Your task to perform on an android device: Open maps Image 0: 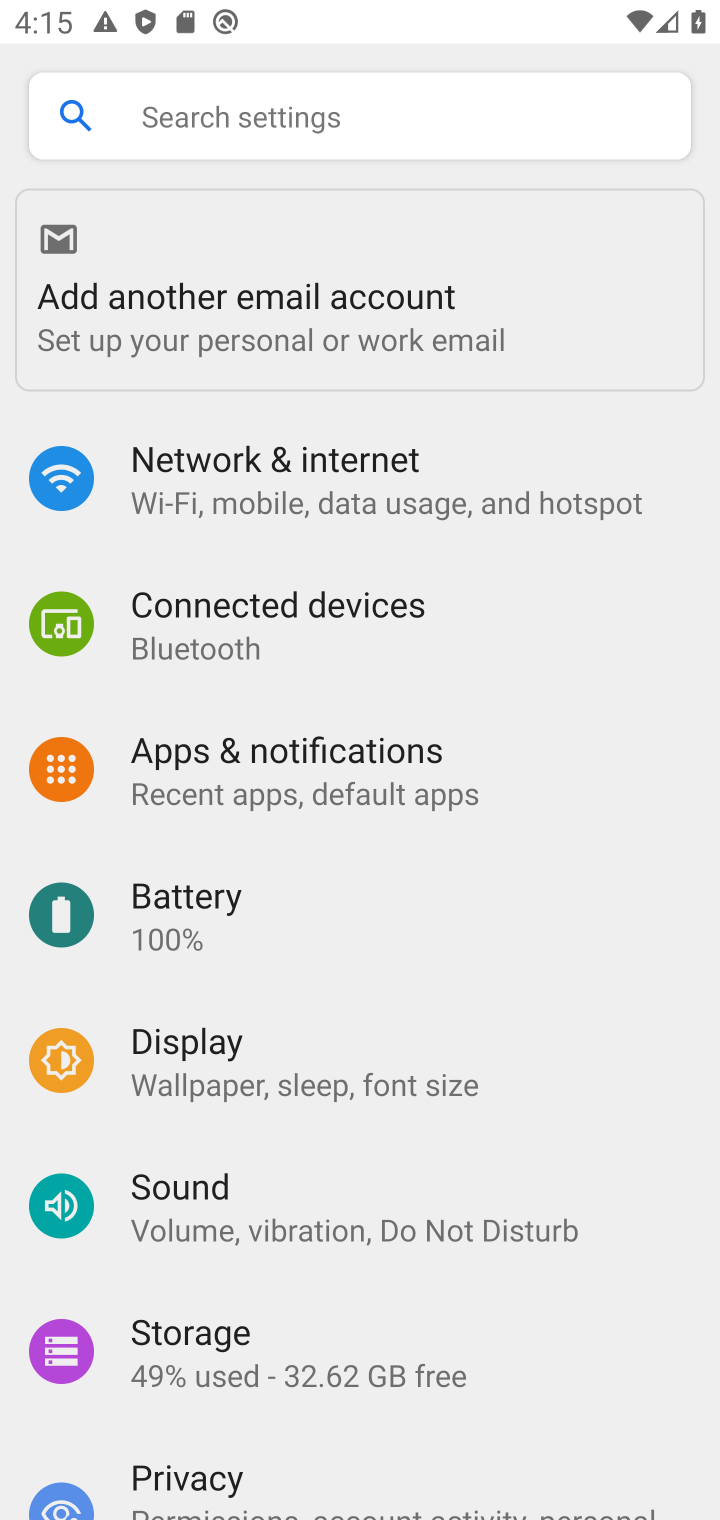
Step 0: press home button
Your task to perform on an android device: Open maps Image 1: 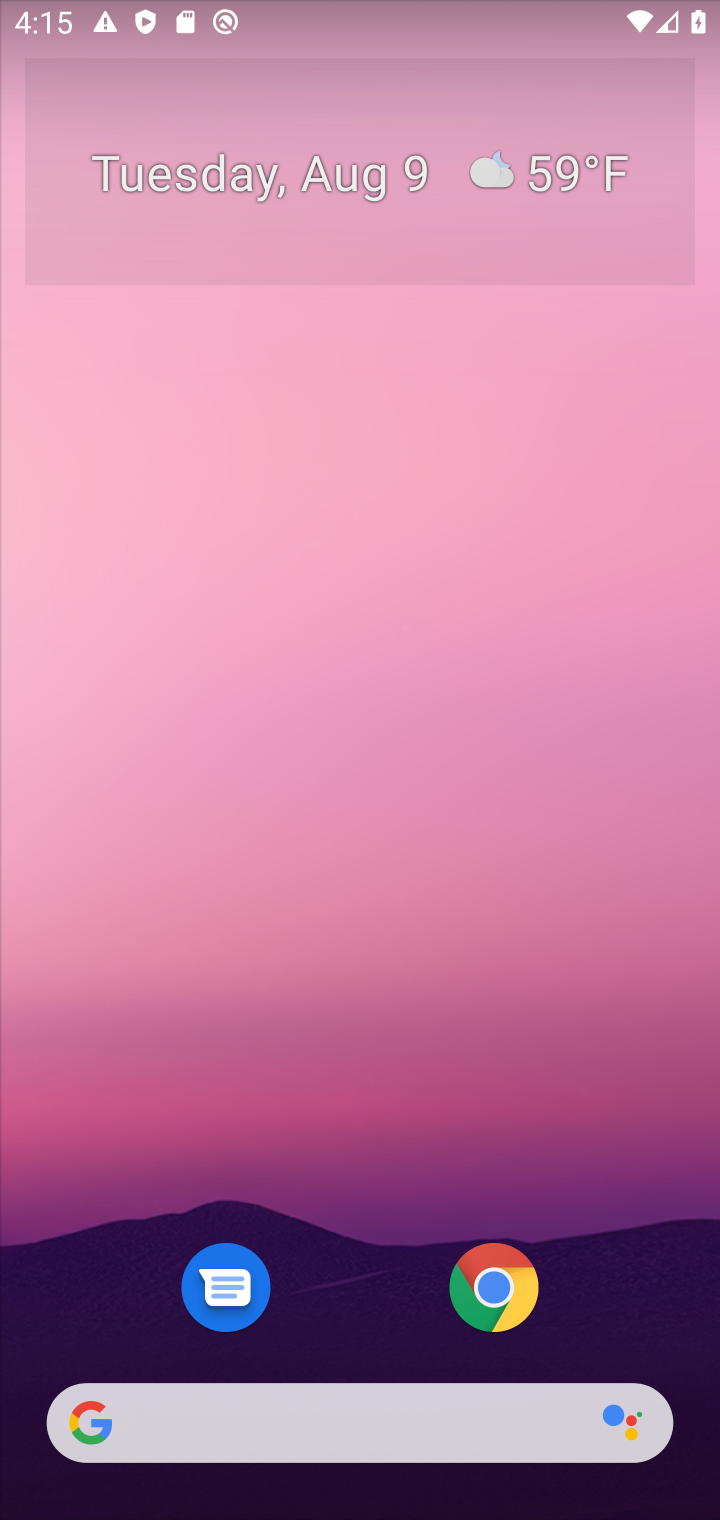
Step 1: drag from (298, 1231) to (310, 509)
Your task to perform on an android device: Open maps Image 2: 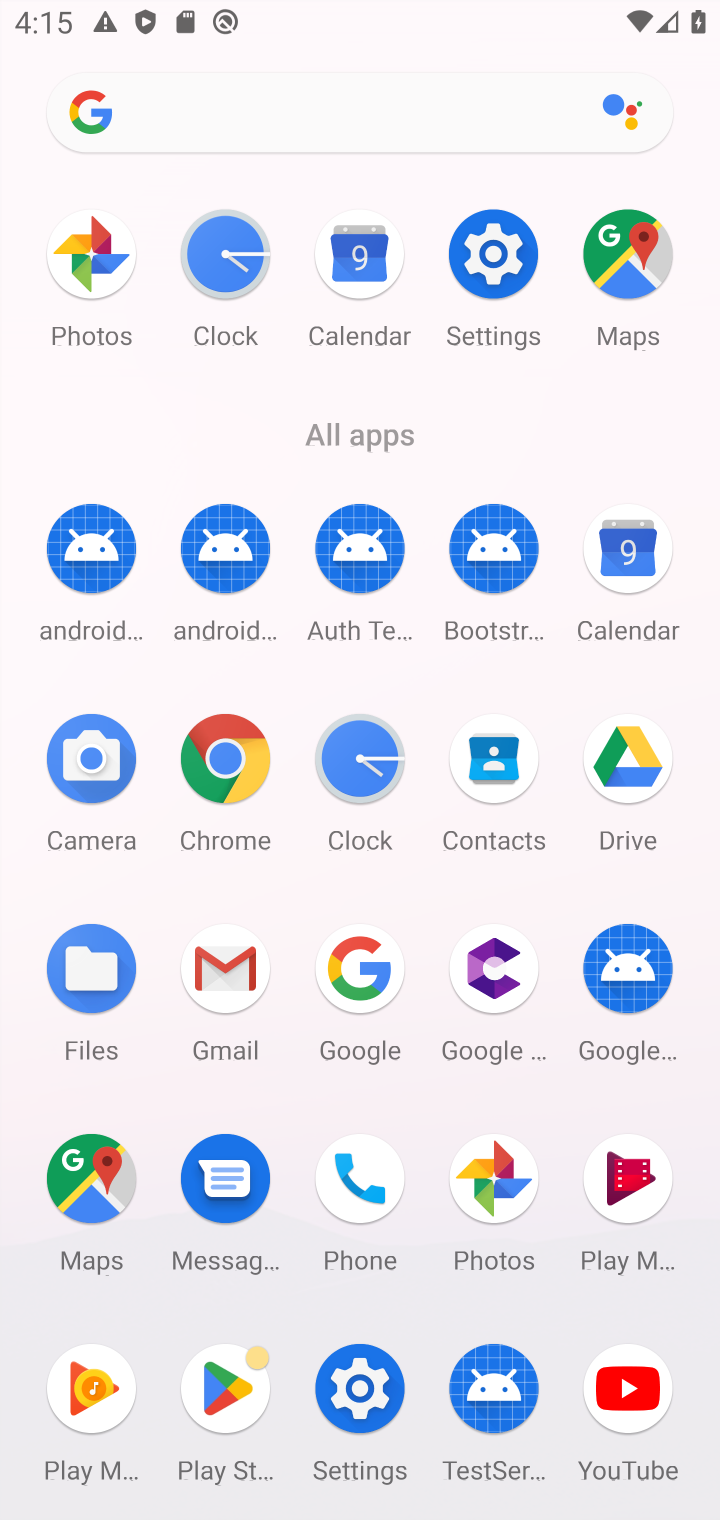
Step 2: click (640, 276)
Your task to perform on an android device: Open maps Image 3: 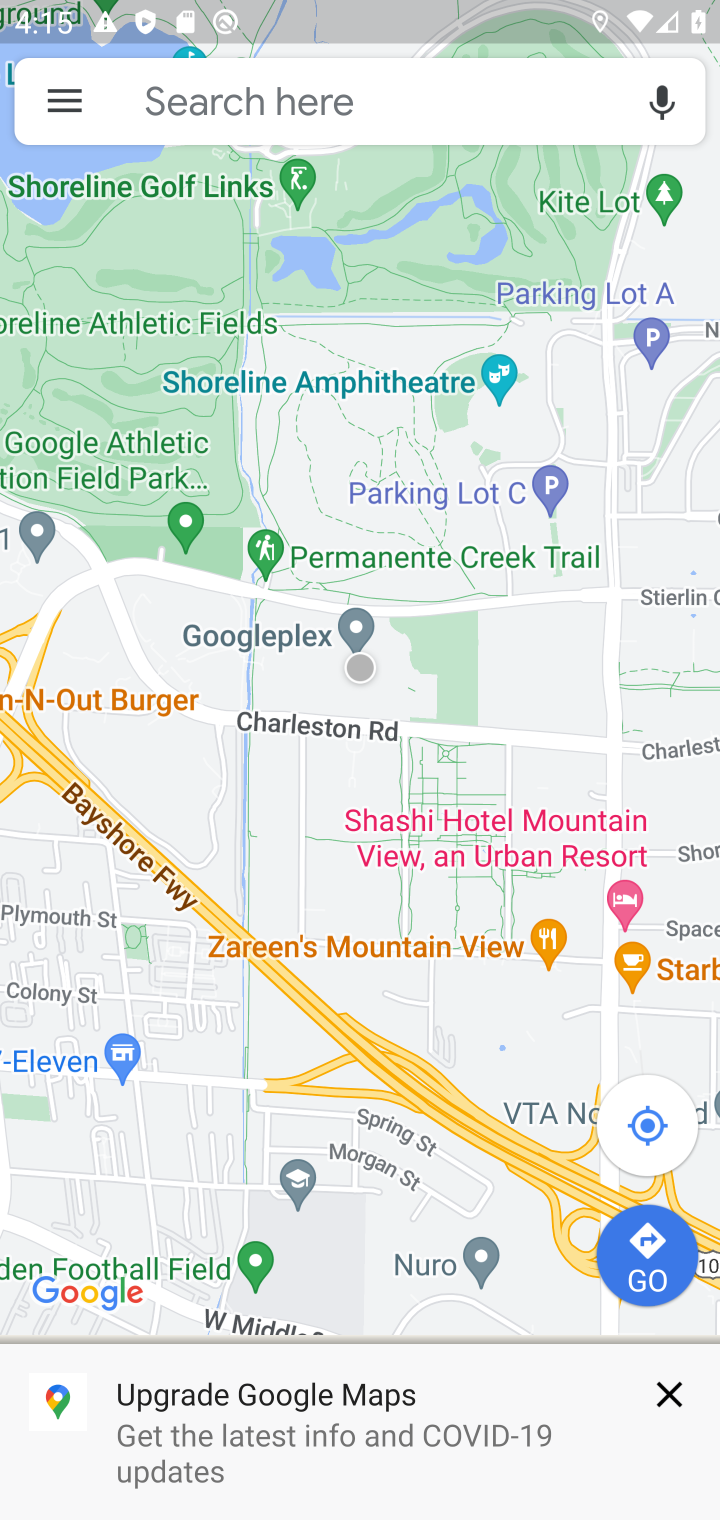
Step 3: task complete